Your task to perform on an android device: Open privacy settings Image 0: 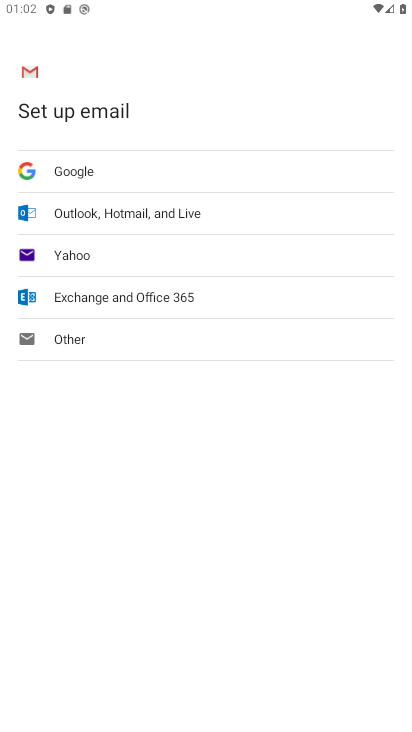
Step 0: press home button
Your task to perform on an android device: Open privacy settings Image 1: 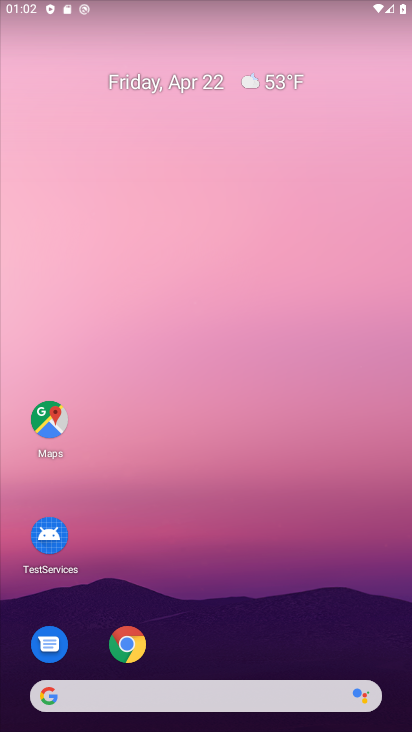
Step 1: drag from (355, 570) to (286, 47)
Your task to perform on an android device: Open privacy settings Image 2: 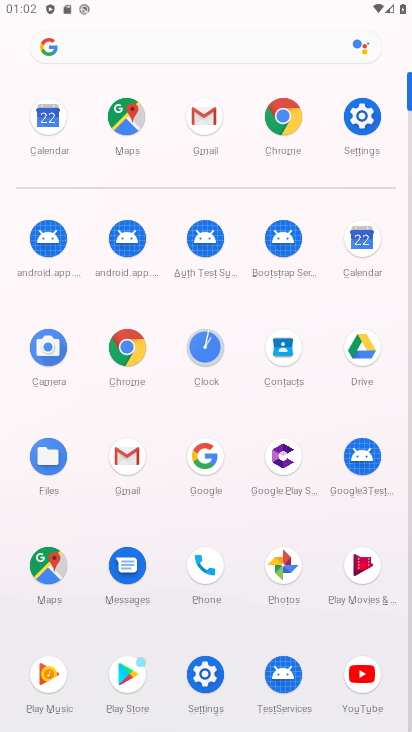
Step 2: click (363, 109)
Your task to perform on an android device: Open privacy settings Image 3: 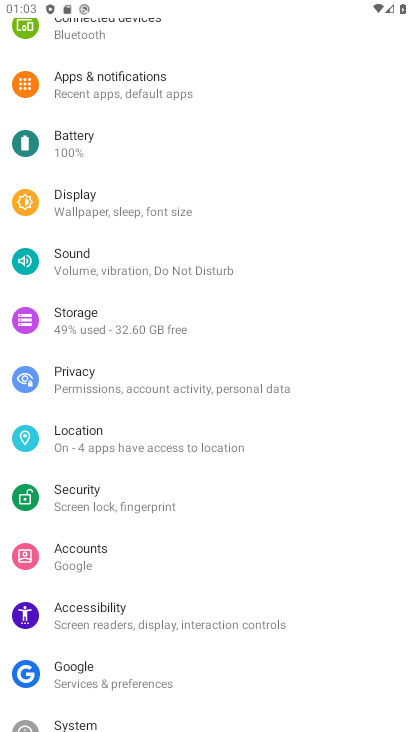
Step 3: drag from (138, 596) to (167, 199)
Your task to perform on an android device: Open privacy settings Image 4: 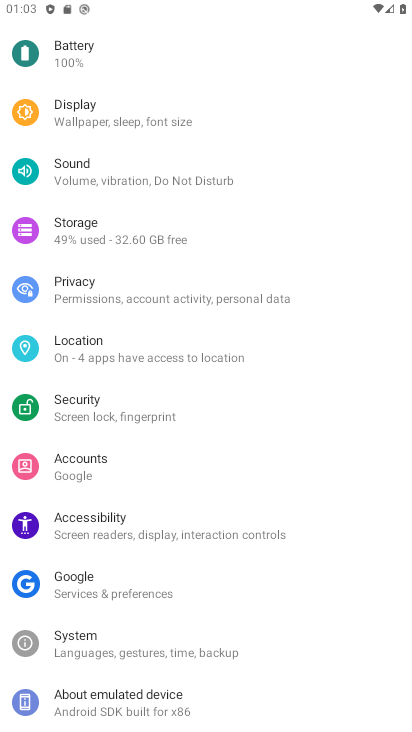
Step 4: click (113, 281)
Your task to perform on an android device: Open privacy settings Image 5: 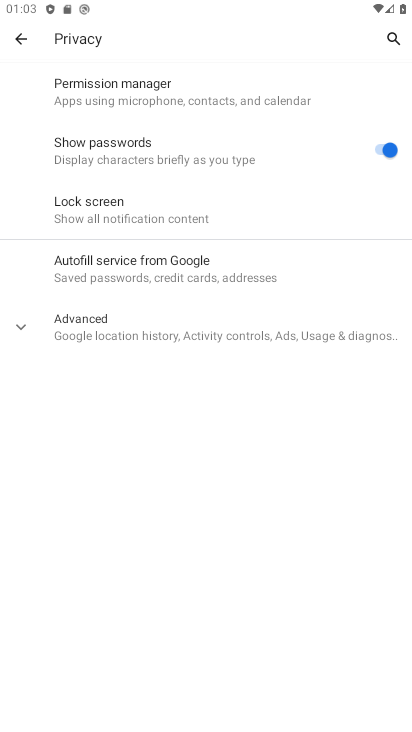
Step 5: task complete